Your task to perform on an android device: Open accessibility settings Image 0: 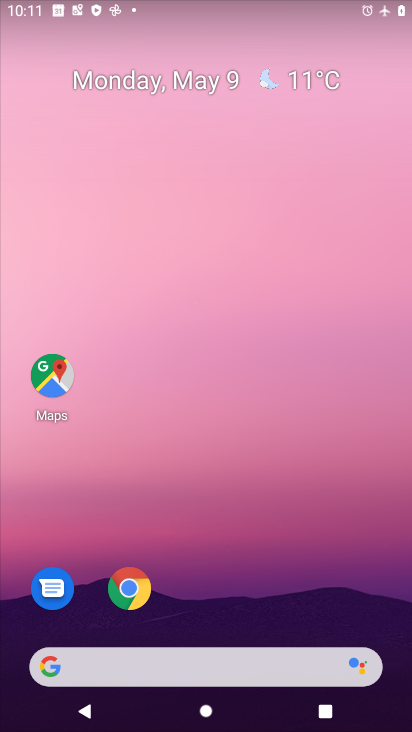
Step 0: drag from (384, 634) to (361, 81)
Your task to perform on an android device: Open accessibility settings Image 1: 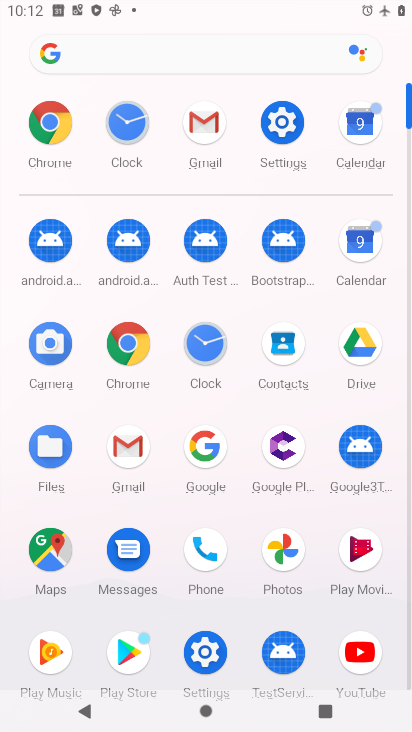
Step 1: click (202, 649)
Your task to perform on an android device: Open accessibility settings Image 2: 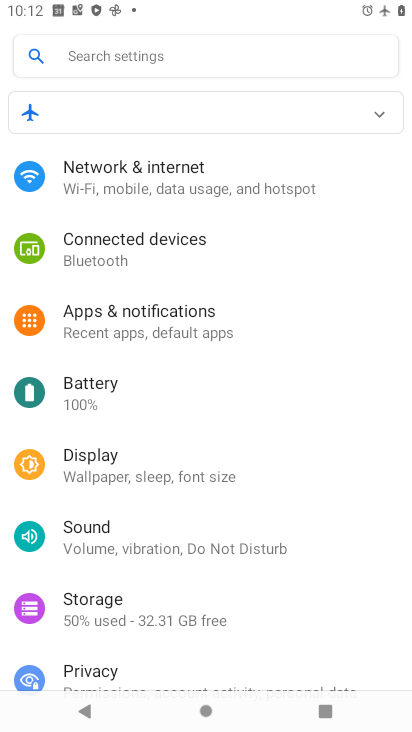
Step 2: drag from (182, 587) to (183, 48)
Your task to perform on an android device: Open accessibility settings Image 3: 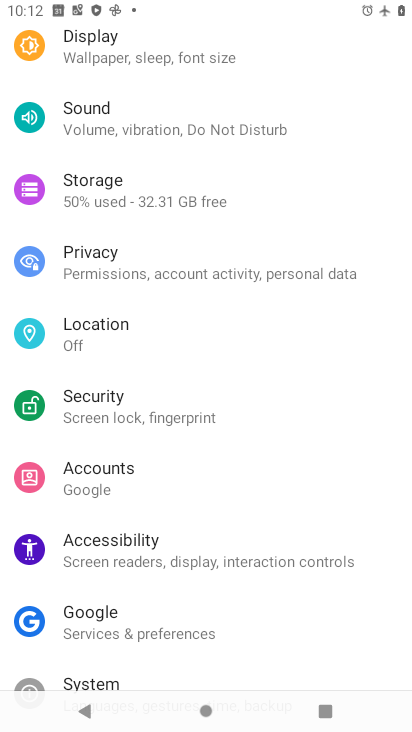
Step 3: click (183, 555)
Your task to perform on an android device: Open accessibility settings Image 4: 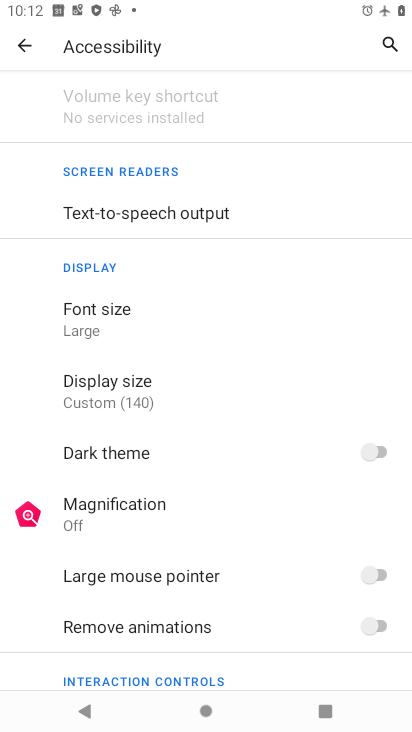
Step 4: task complete